Your task to perform on an android device: What's the weather today? Image 0: 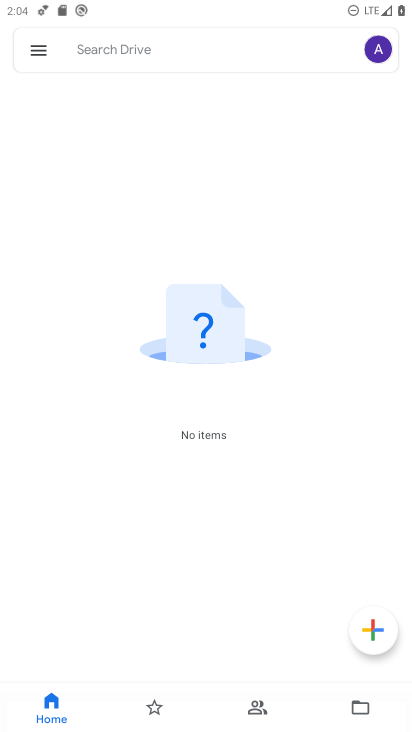
Step 0: press home button
Your task to perform on an android device: What's the weather today? Image 1: 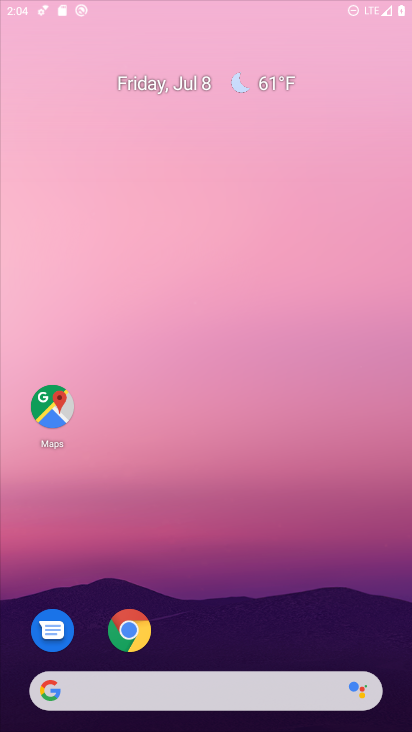
Step 1: drag from (398, 679) to (273, 5)
Your task to perform on an android device: What's the weather today? Image 2: 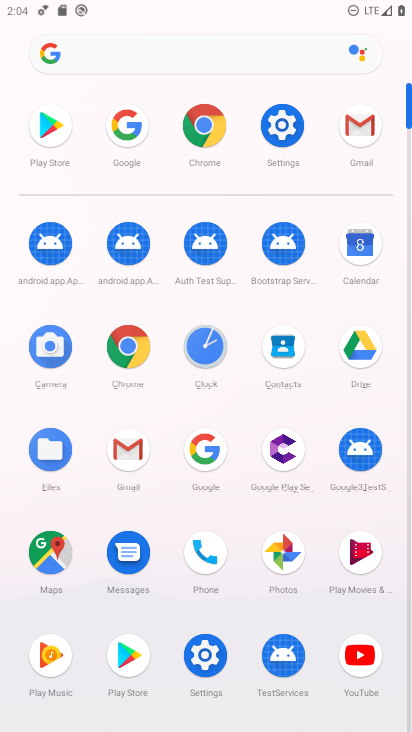
Step 2: click (196, 433)
Your task to perform on an android device: What's the weather today? Image 3: 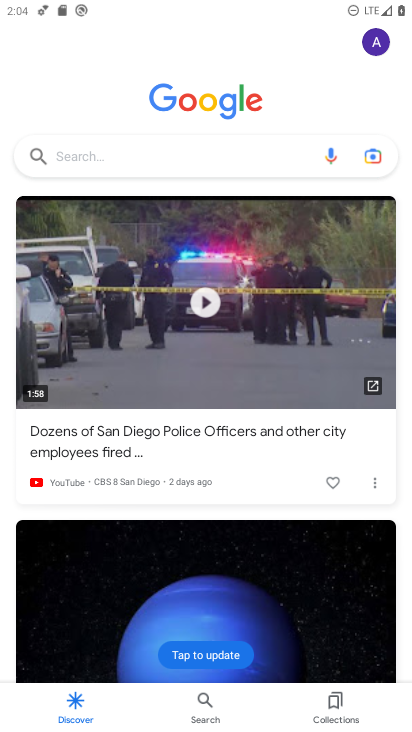
Step 3: click (102, 157)
Your task to perform on an android device: What's the weather today? Image 4: 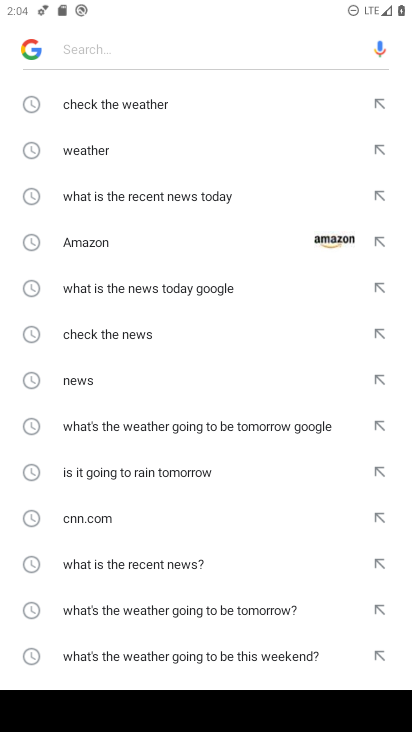
Step 4: type "What's the weather today?"
Your task to perform on an android device: What's the weather today? Image 5: 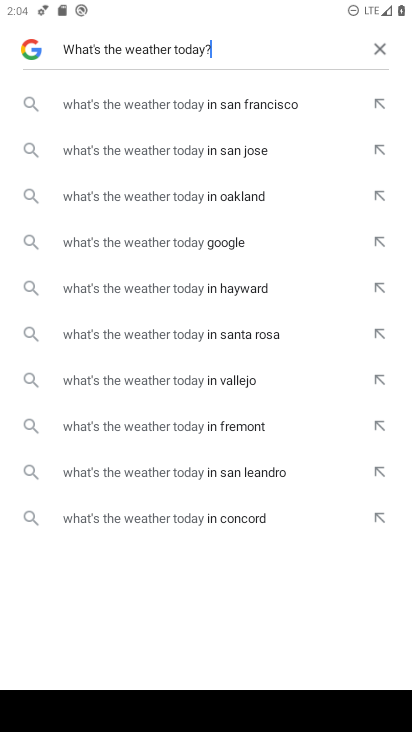
Step 5: click (221, 245)
Your task to perform on an android device: What's the weather today? Image 6: 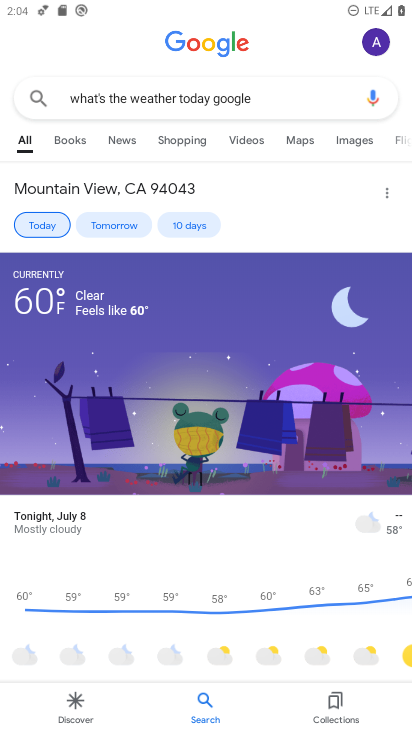
Step 6: task complete